Your task to perform on an android device: Look up the top rated headphones on Amazon. Image 0: 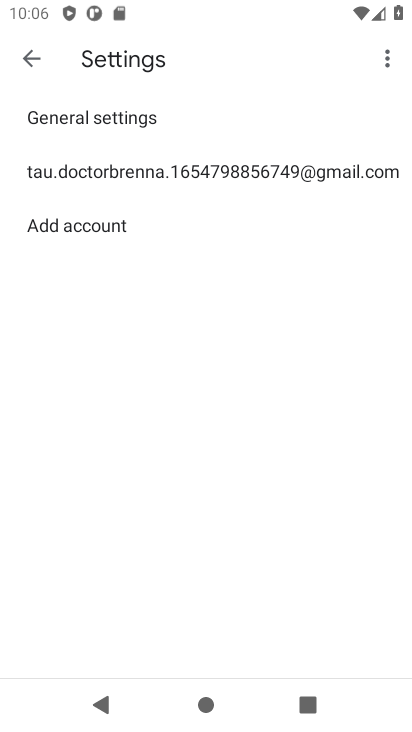
Step 0: press home button
Your task to perform on an android device: Look up the top rated headphones on Amazon. Image 1: 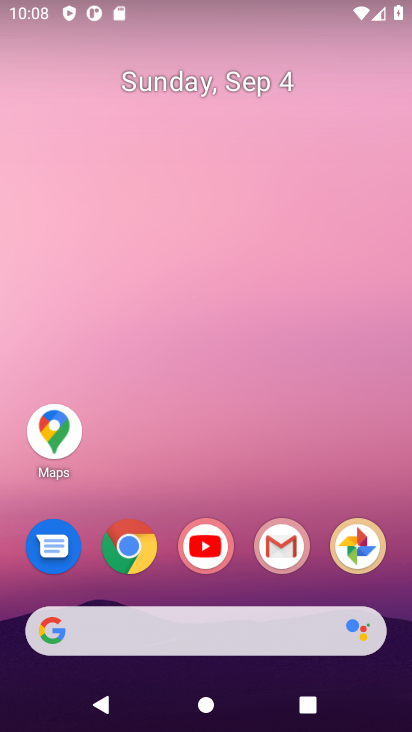
Step 1: click (128, 551)
Your task to perform on an android device: Look up the top rated headphones on Amazon. Image 2: 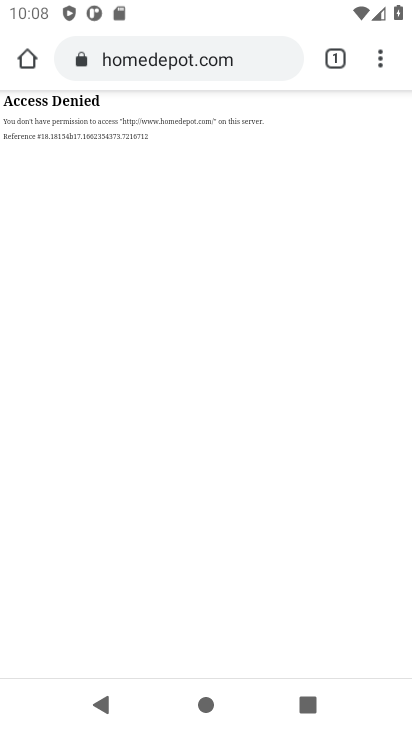
Step 2: click (181, 42)
Your task to perform on an android device: Look up the top rated headphones on Amazon. Image 3: 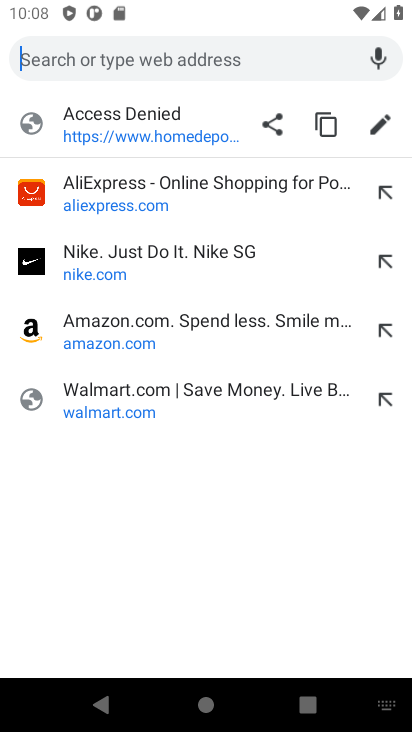
Step 3: click (139, 324)
Your task to perform on an android device: Look up the top rated headphones on Amazon. Image 4: 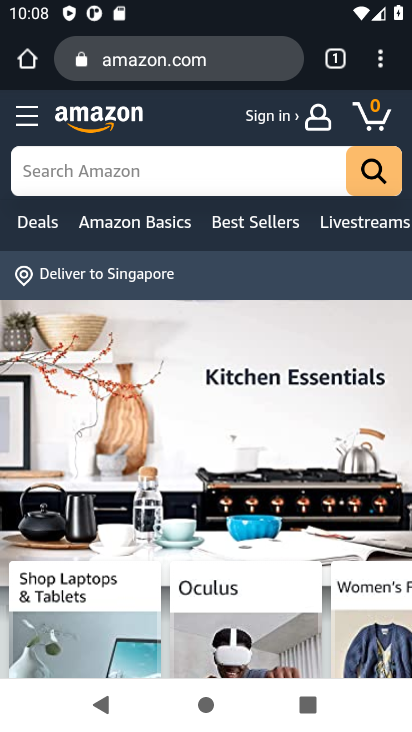
Step 4: click (182, 172)
Your task to perform on an android device: Look up the top rated headphones on Amazon. Image 5: 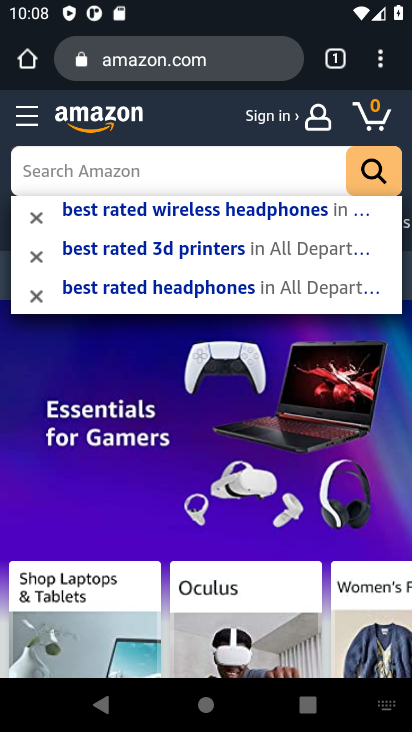
Step 5: type "top rated headphones"
Your task to perform on an android device: Look up the top rated headphones on Amazon. Image 6: 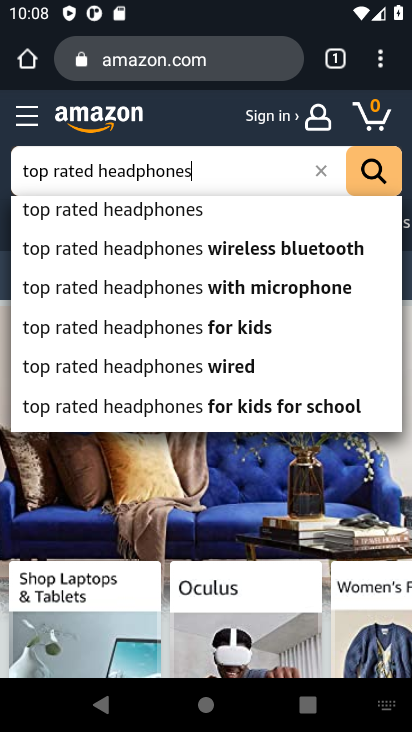
Step 6: click (157, 215)
Your task to perform on an android device: Look up the top rated headphones on Amazon. Image 7: 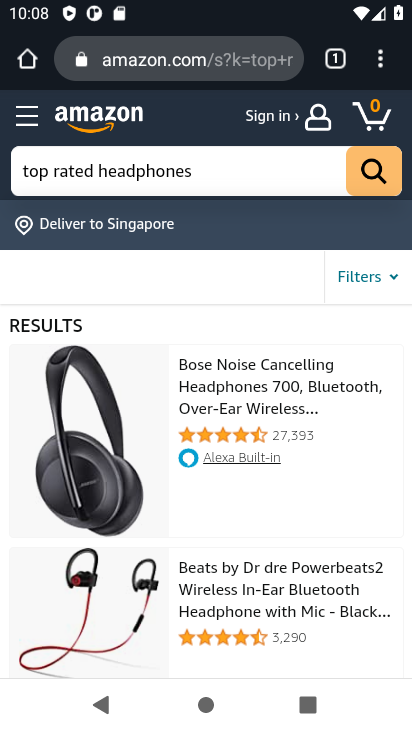
Step 7: task complete